Your task to perform on an android device: Search for Italian restaurants on Maps Image 0: 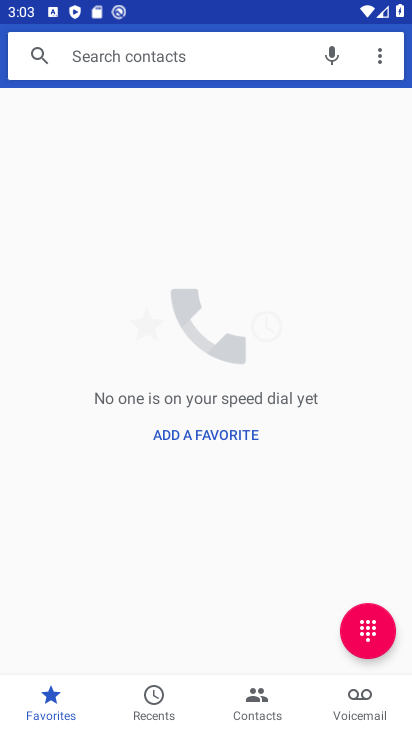
Step 0: press home button
Your task to perform on an android device: Search for Italian restaurants on Maps Image 1: 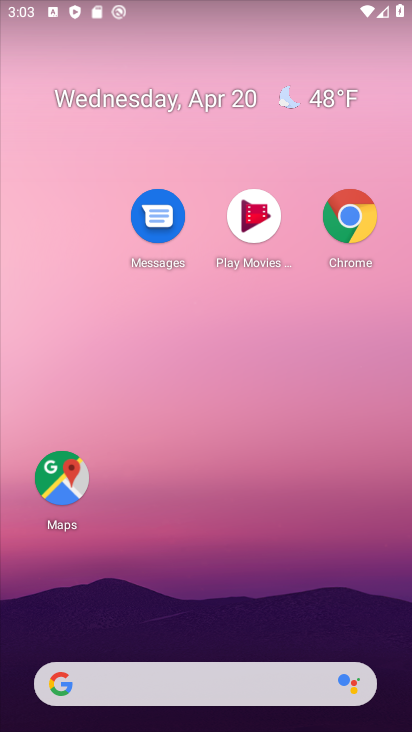
Step 1: click (71, 482)
Your task to perform on an android device: Search for Italian restaurants on Maps Image 2: 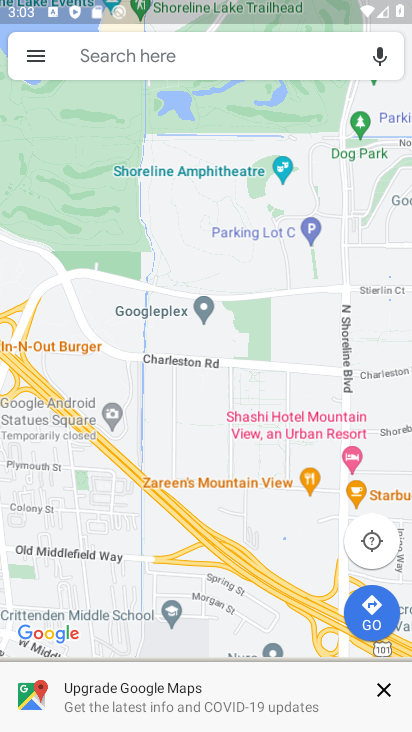
Step 2: click (178, 61)
Your task to perform on an android device: Search for Italian restaurants on Maps Image 3: 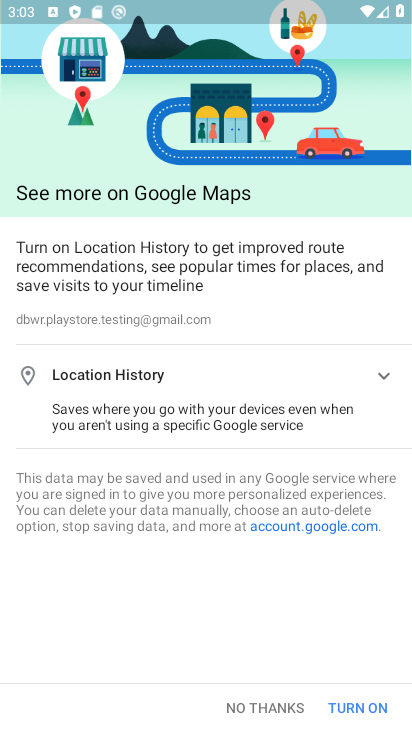
Step 3: click (269, 700)
Your task to perform on an android device: Search for Italian restaurants on Maps Image 4: 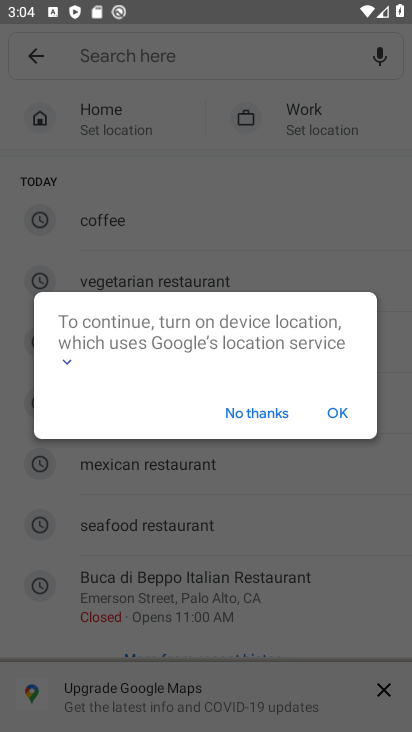
Step 4: click (260, 423)
Your task to perform on an android device: Search for Italian restaurants on Maps Image 5: 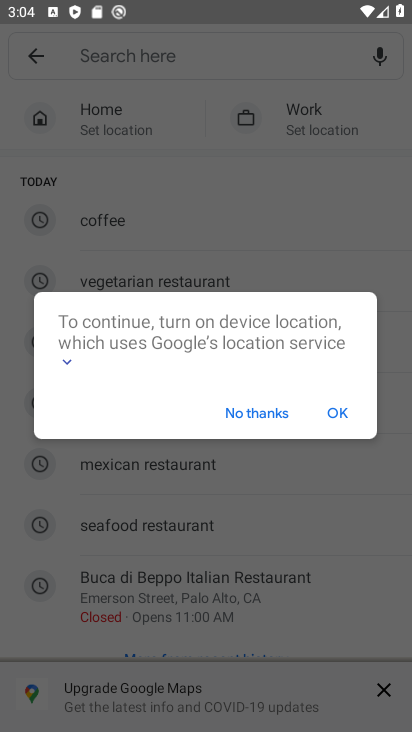
Step 5: click (252, 415)
Your task to perform on an android device: Search for Italian restaurants on Maps Image 6: 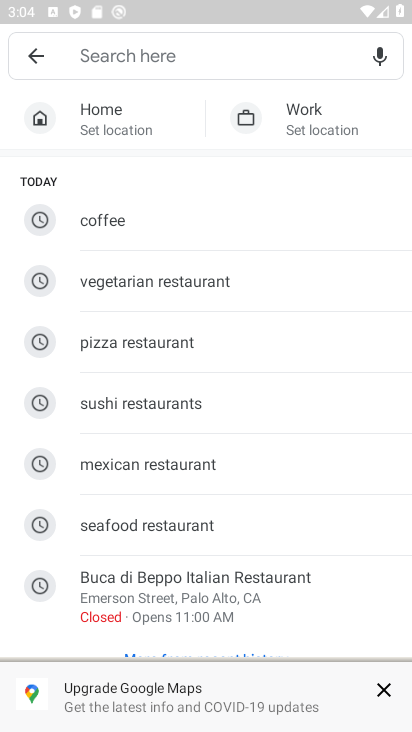
Step 6: click (142, 52)
Your task to perform on an android device: Search for Italian restaurants on Maps Image 7: 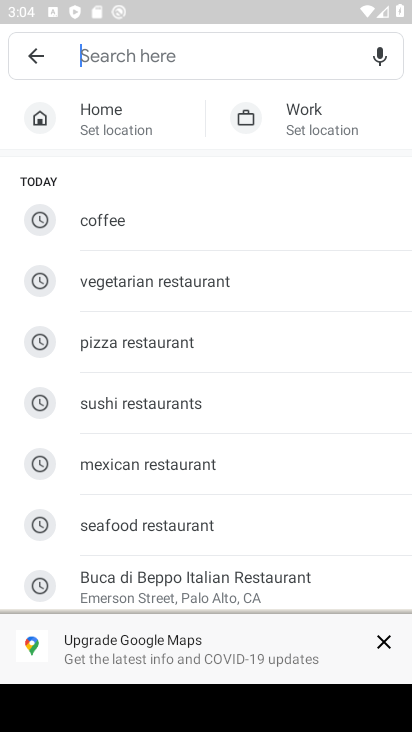
Step 7: type "Italian restaurants"
Your task to perform on an android device: Search for Italian restaurants on Maps Image 8: 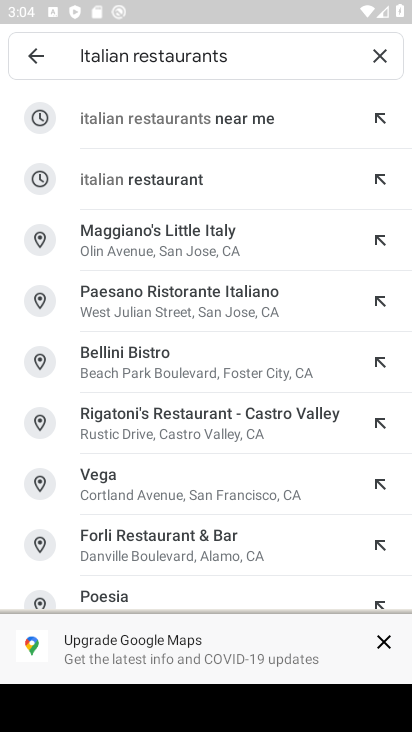
Step 8: click (222, 117)
Your task to perform on an android device: Search for Italian restaurants on Maps Image 9: 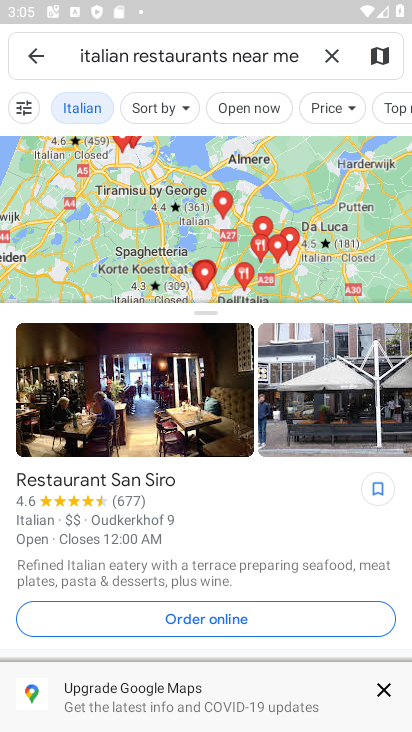
Step 9: task complete